Your task to perform on an android device: toggle sleep mode Image 0: 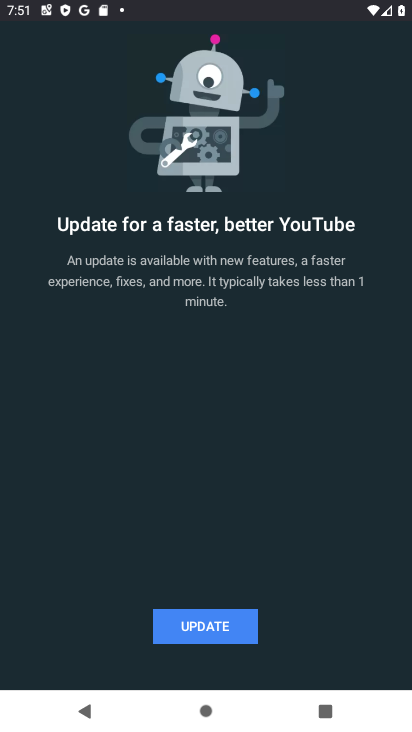
Step 0: press back button
Your task to perform on an android device: toggle sleep mode Image 1: 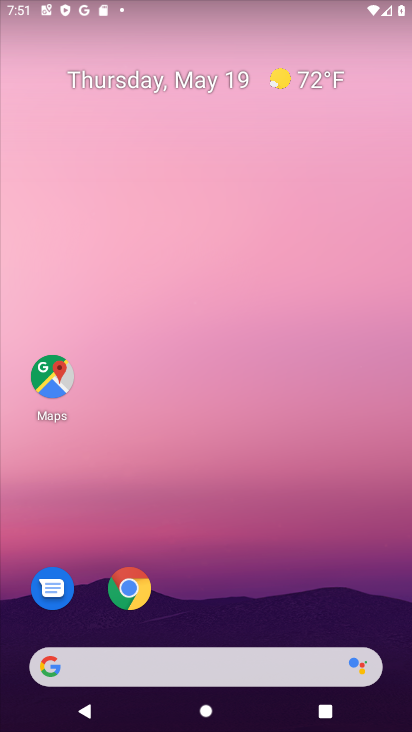
Step 1: drag from (338, 618) to (232, 3)
Your task to perform on an android device: toggle sleep mode Image 2: 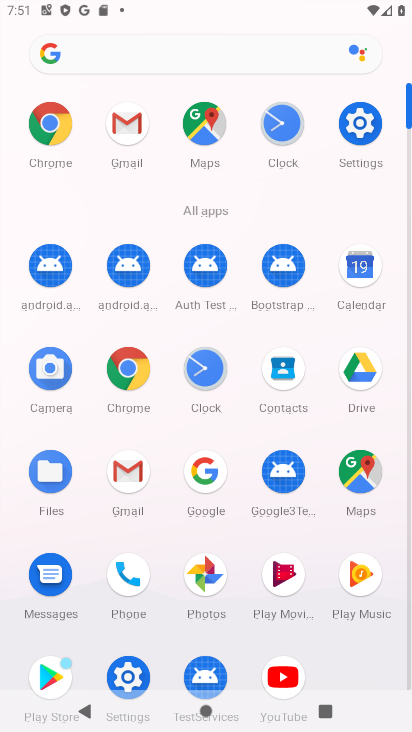
Step 2: drag from (197, 4) to (238, 718)
Your task to perform on an android device: toggle sleep mode Image 3: 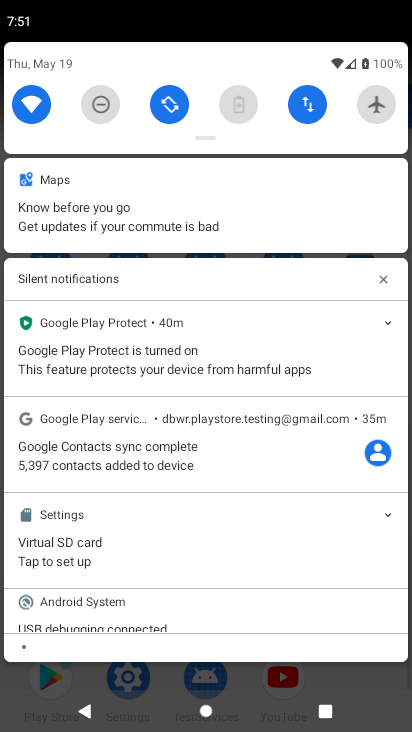
Step 3: drag from (234, 142) to (244, 702)
Your task to perform on an android device: toggle sleep mode Image 4: 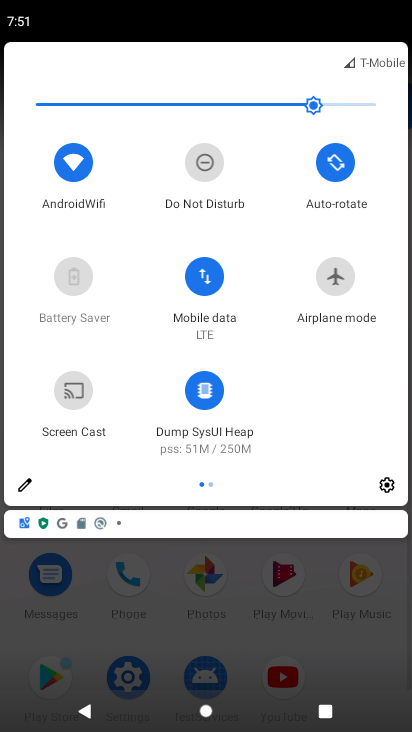
Step 4: click (20, 482)
Your task to perform on an android device: toggle sleep mode Image 5: 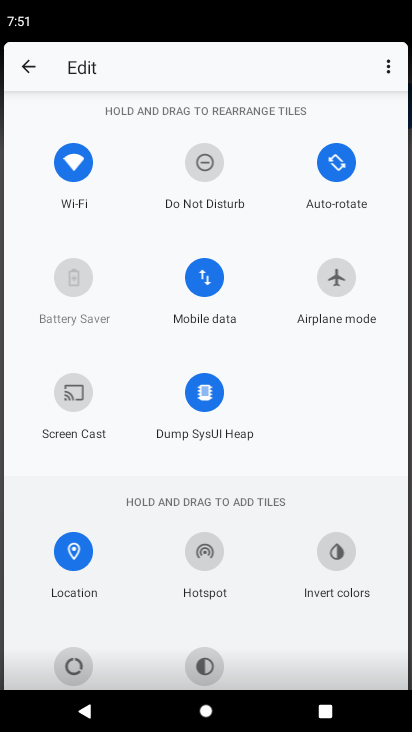
Step 5: task complete